Your task to perform on an android device: toggle priority inbox in the gmail app Image 0: 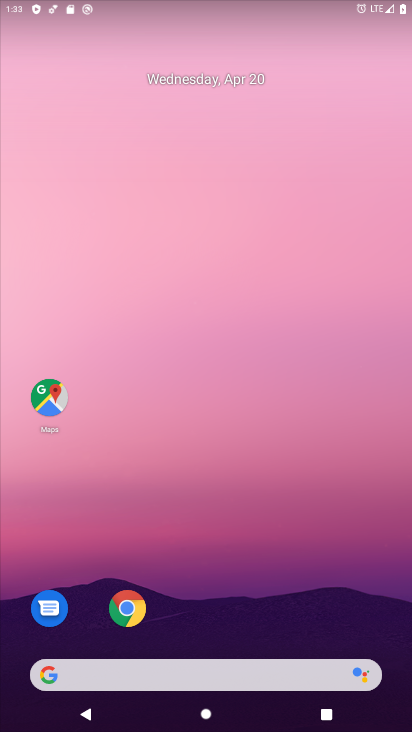
Step 0: drag from (209, 727) to (205, 114)
Your task to perform on an android device: toggle priority inbox in the gmail app Image 1: 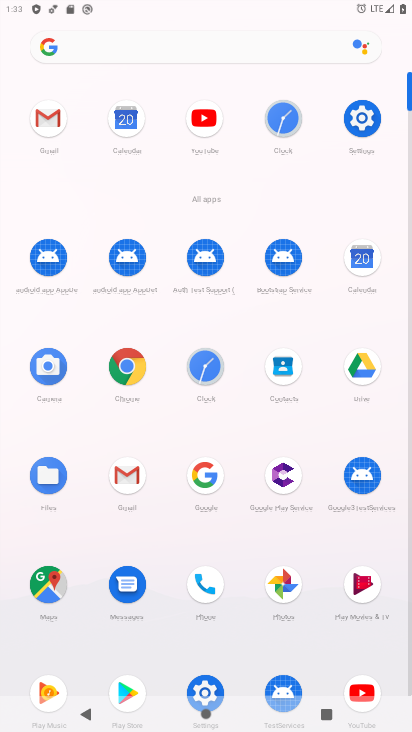
Step 1: click (49, 116)
Your task to perform on an android device: toggle priority inbox in the gmail app Image 2: 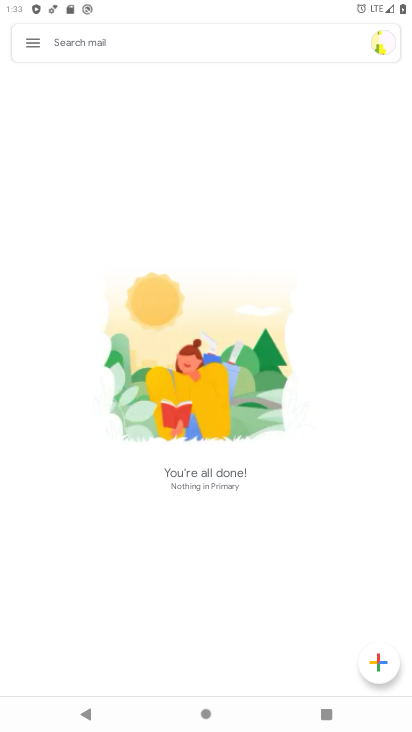
Step 2: click (31, 39)
Your task to perform on an android device: toggle priority inbox in the gmail app Image 3: 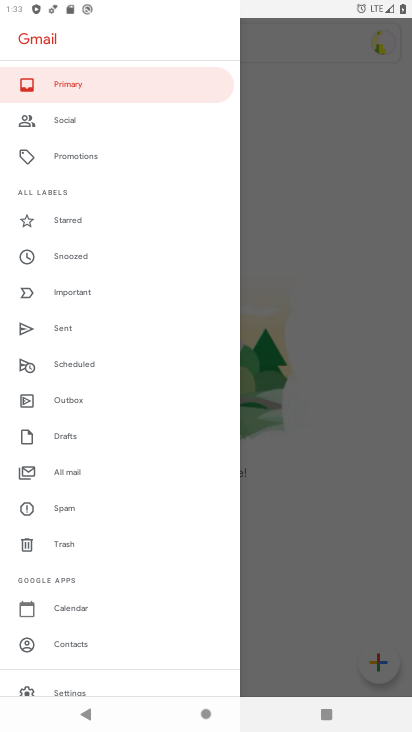
Step 3: drag from (118, 662) to (80, 369)
Your task to perform on an android device: toggle priority inbox in the gmail app Image 4: 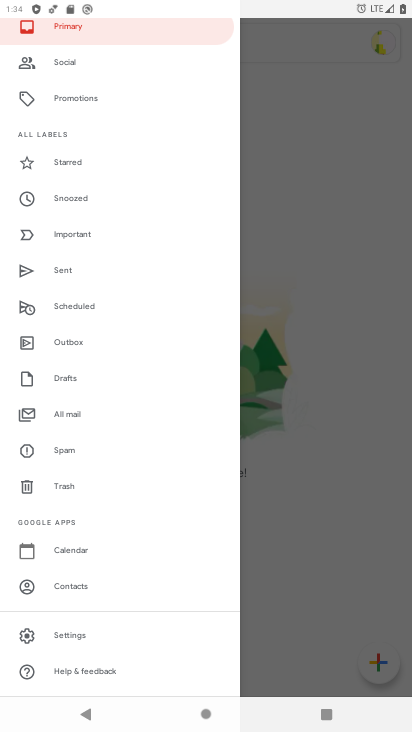
Step 4: click (70, 632)
Your task to perform on an android device: toggle priority inbox in the gmail app Image 5: 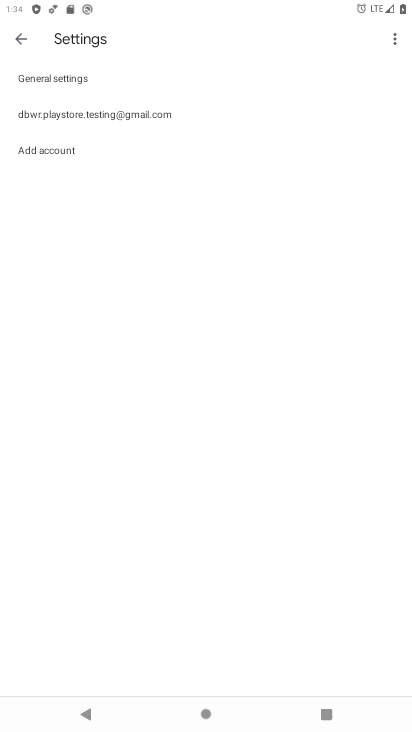
Step 5: click (113, 113)
Your task to perform on an android device: toggle priority inbox in the gmail app Image 6: 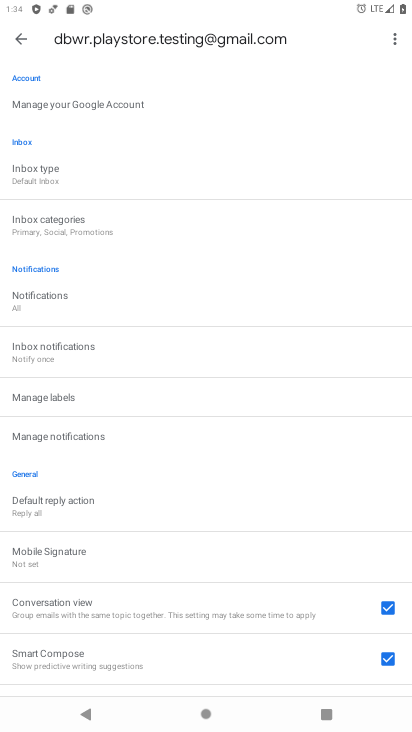
Step 6: click (33, 174)
Your task to perform on an android device: toggle priority inbox in the gmail app Image 7: 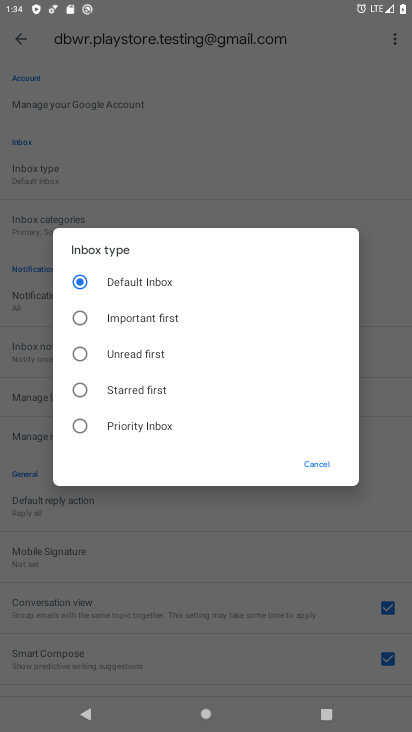
Step 7: click (78, 423)
Your task to perform on an android device: toggle priority inbox in the gmail app Image 8: 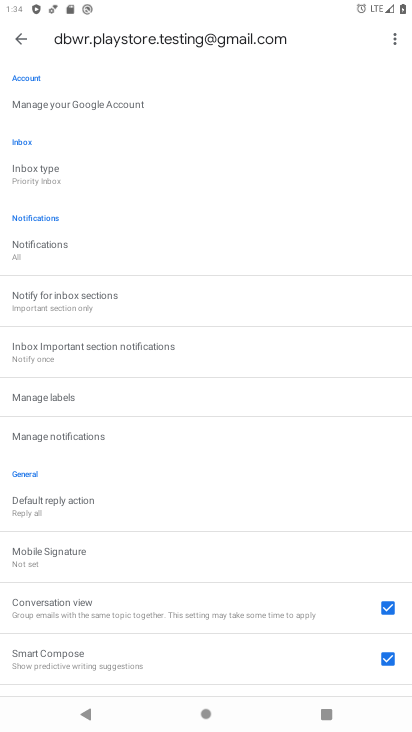
Step 8: task complete